Your task to perform on an android device: change the clock display to show seconds Image 0: 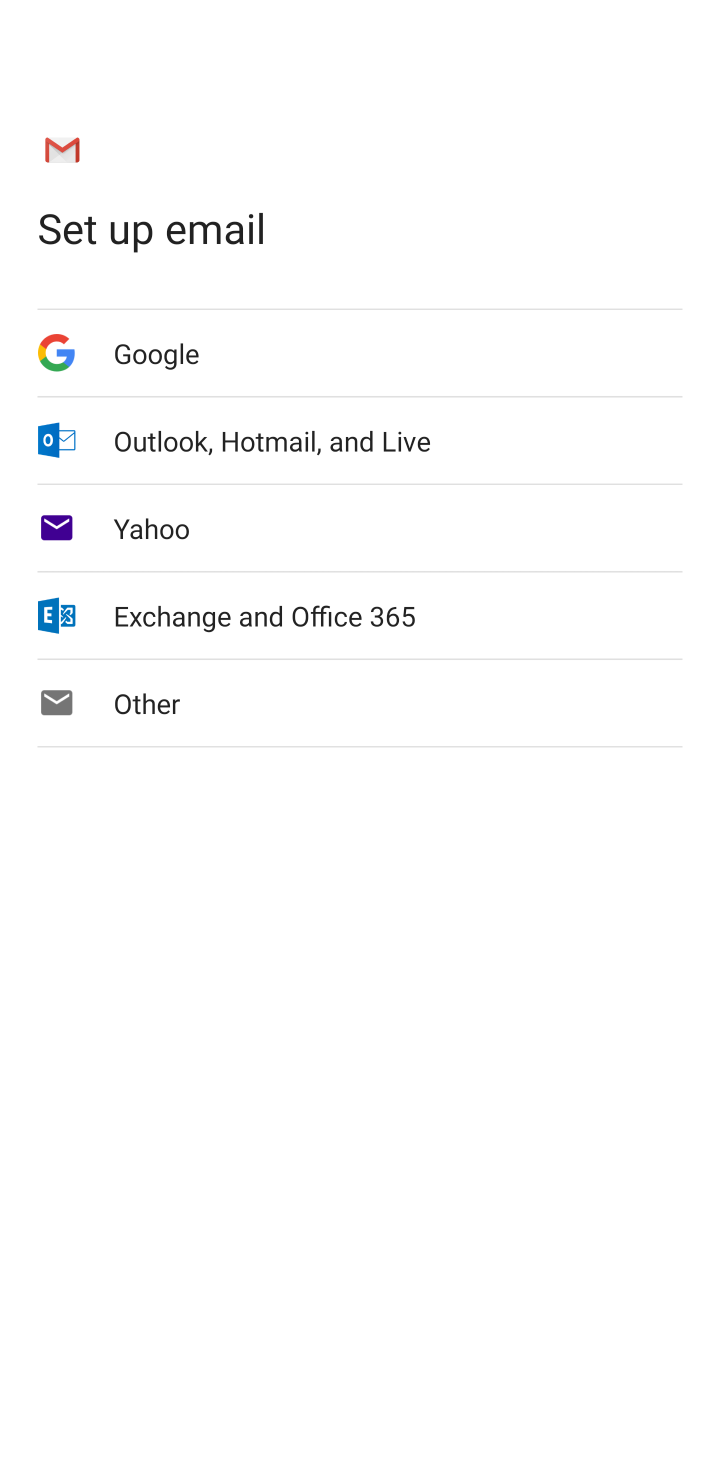
Step 0: press home button
Your task to perform on an android device: change the clock display to show seconds Image 1: 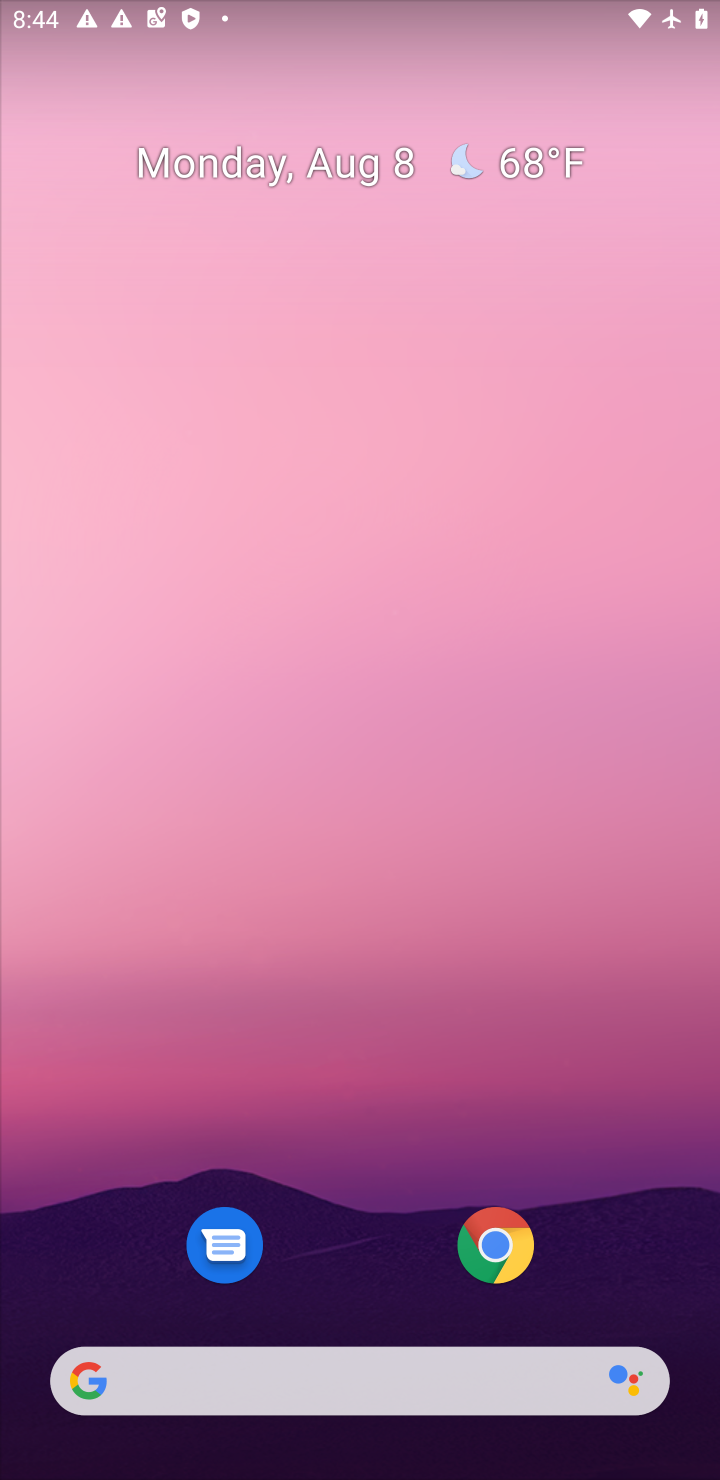
Step 1: drag from (337, 76) to (403, 3)
Your task to perform on an android device: change the clock display to show seconds Image 2: 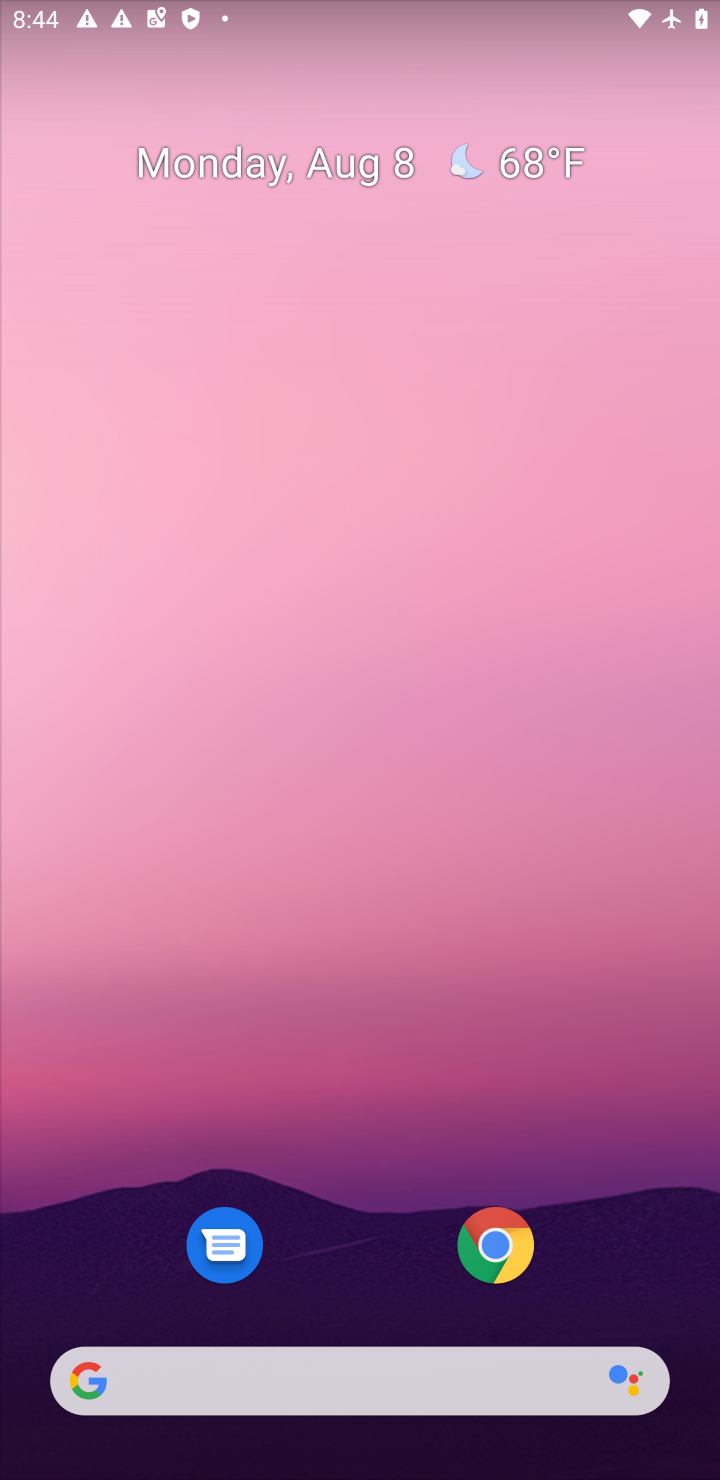
Step 2: drag from (320, 930) to (455, 7)
Your task to perform on an android device: change the clock display to show seconds Image 3: 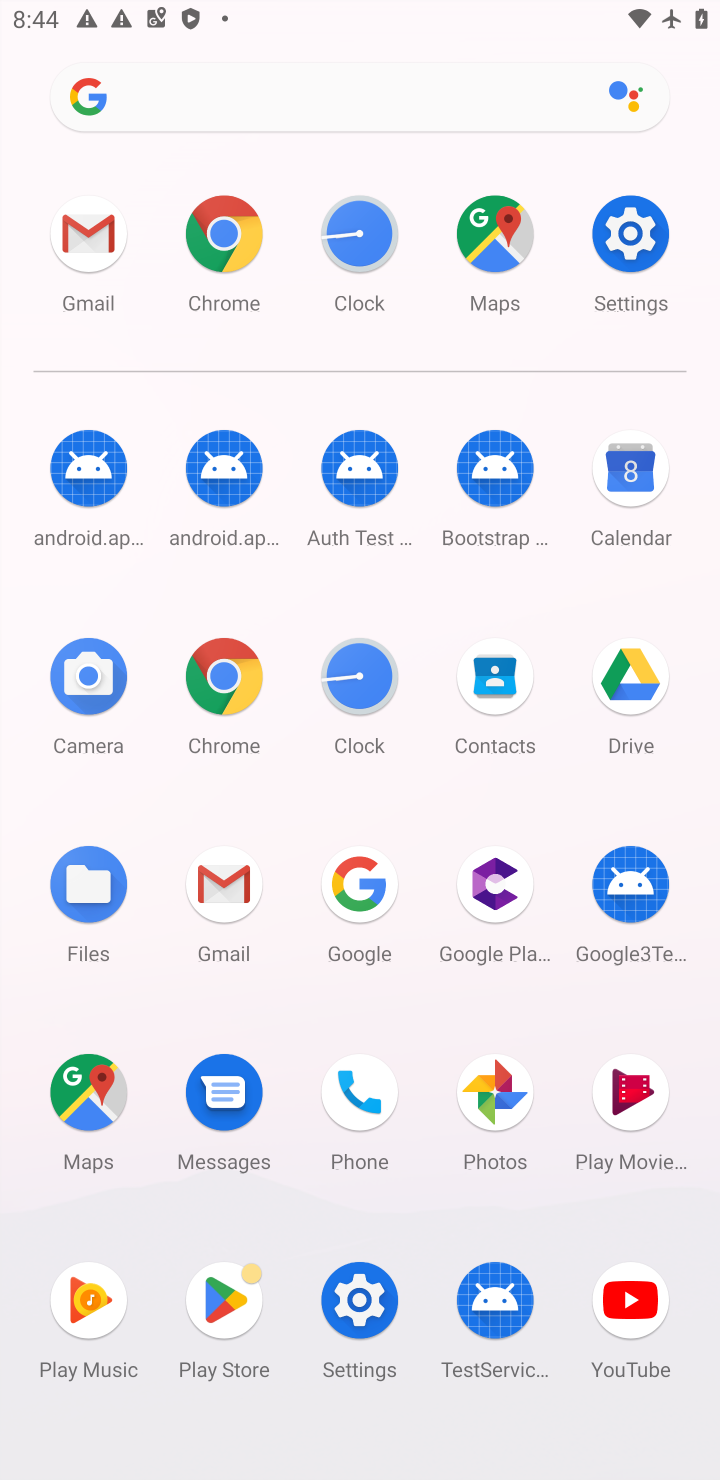
Step 3: click (363, 280)
Your task to perform on an android device: change the clock display to show seconds Image 4: 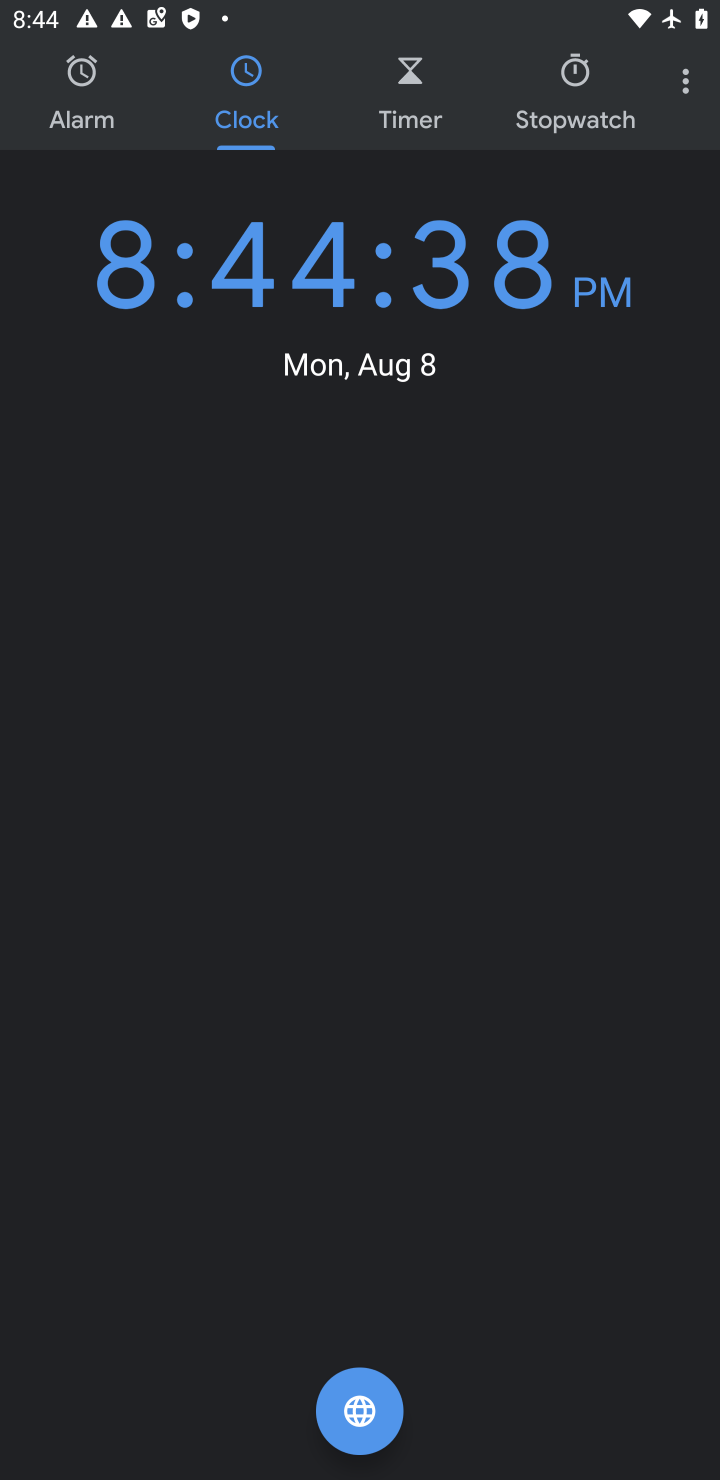
Step 4: click (687, 94)
Your task to perform on an android device: change the clock display to show seconds Image 5: 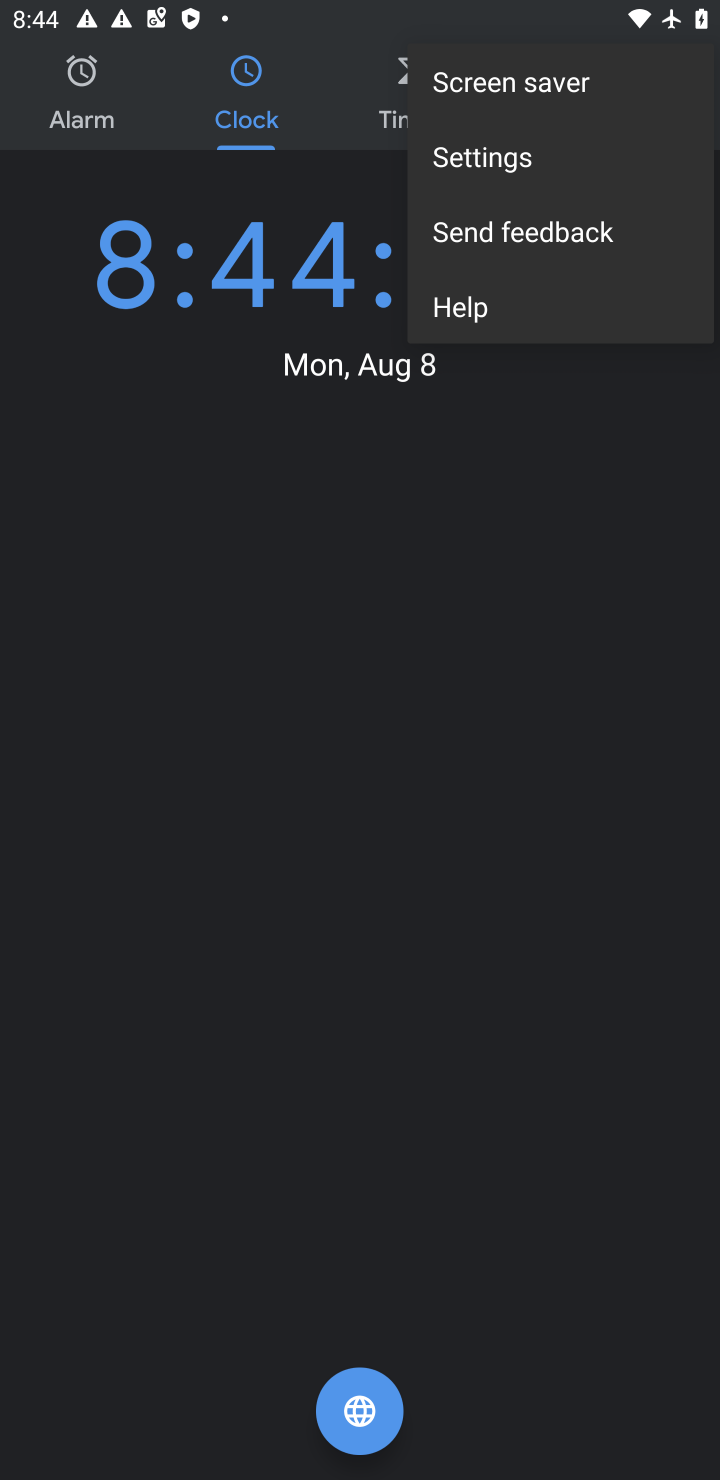
Step 5: click (501, 173)
Your task to perform on an android device: change the clock display to show seconds Image 6: 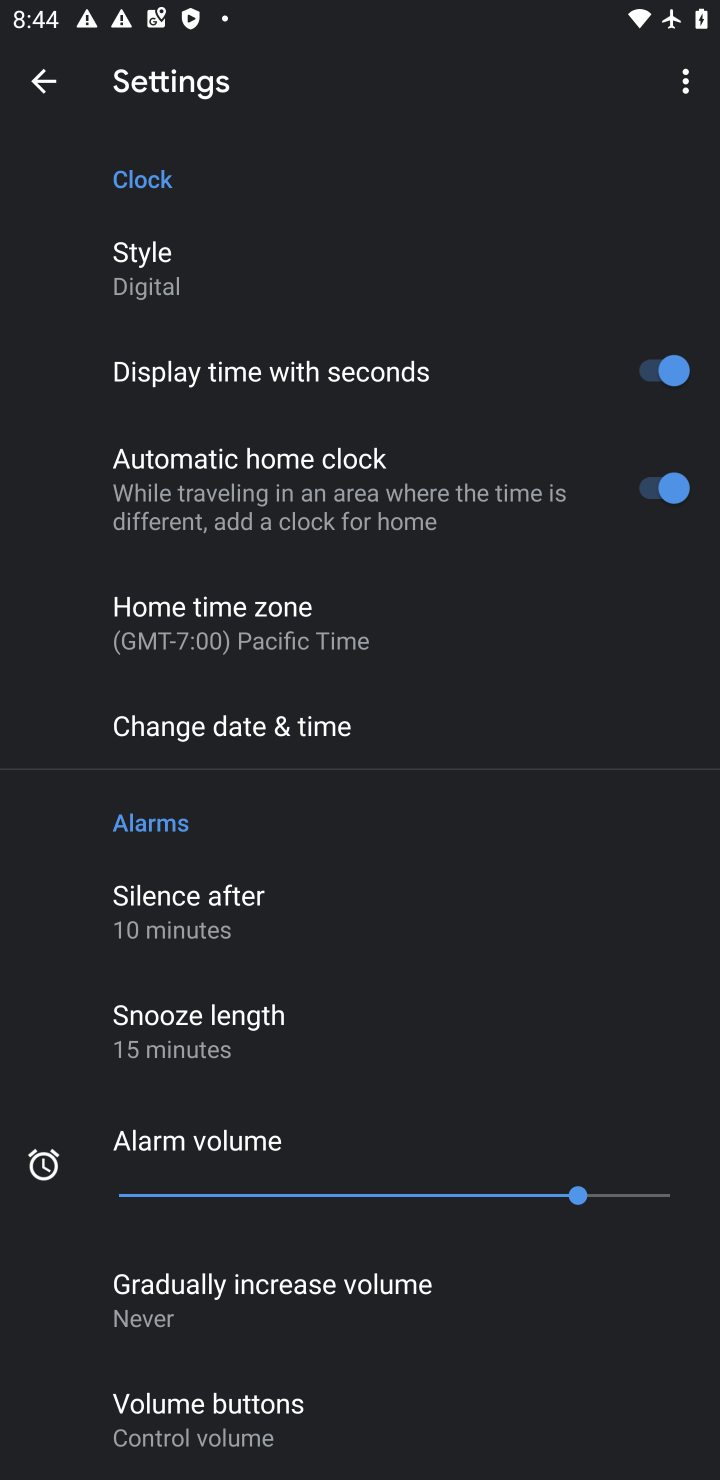
Step 6: click (167, 270)
Your task to perform on an android device: change the clock display to show seconds Image 7: 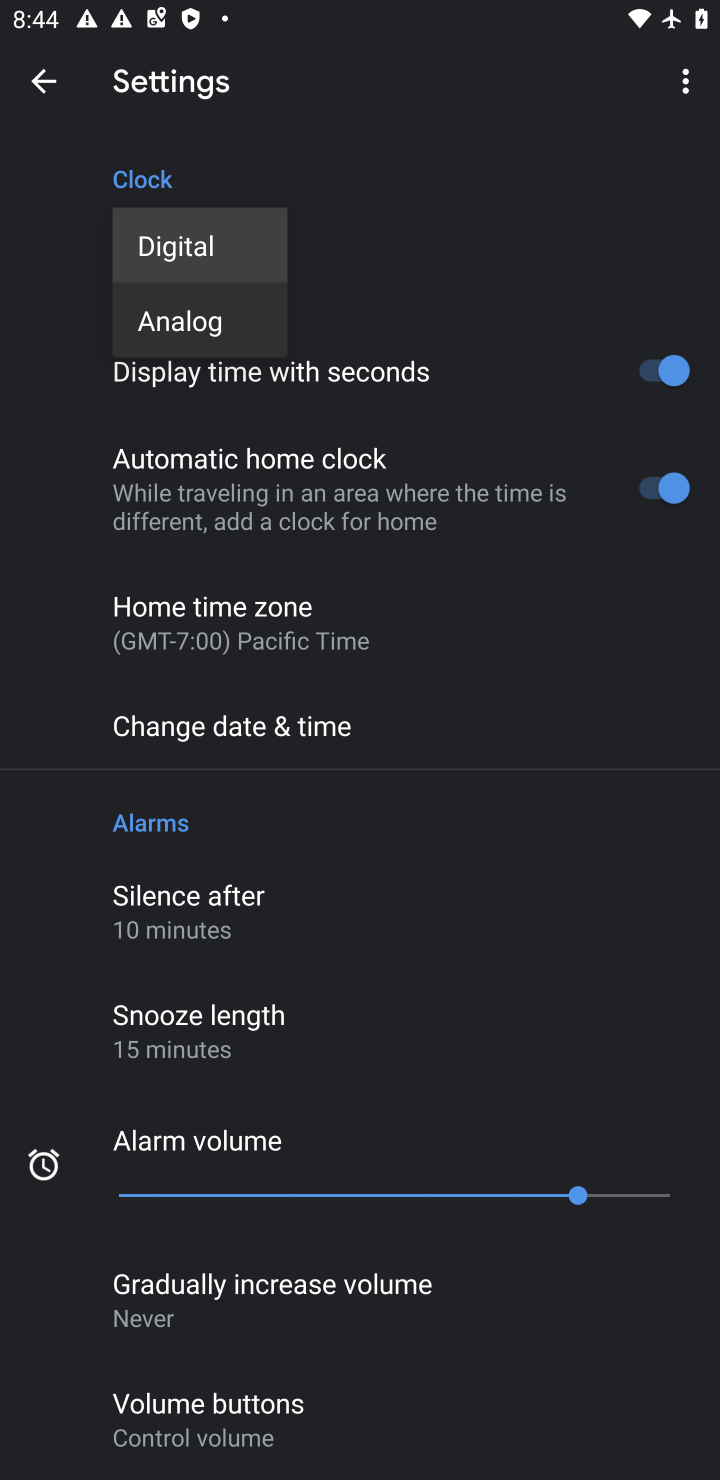
Step 7: click (167, 323)
Your task to perform on an android device: change the clock display to show seconds Image 8: 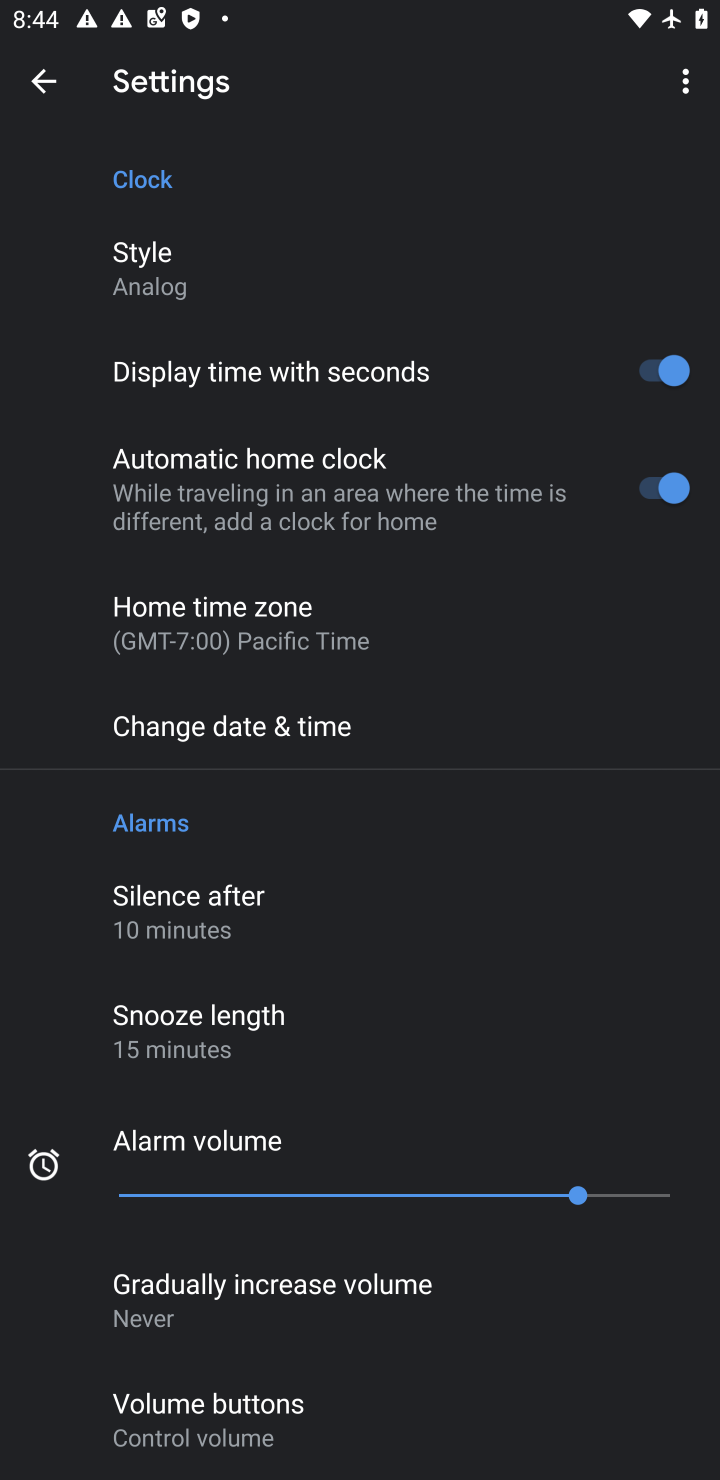
Step 8: task complete